Your task to perform on an android device: turn on the 24-hour format for clock Image 0: 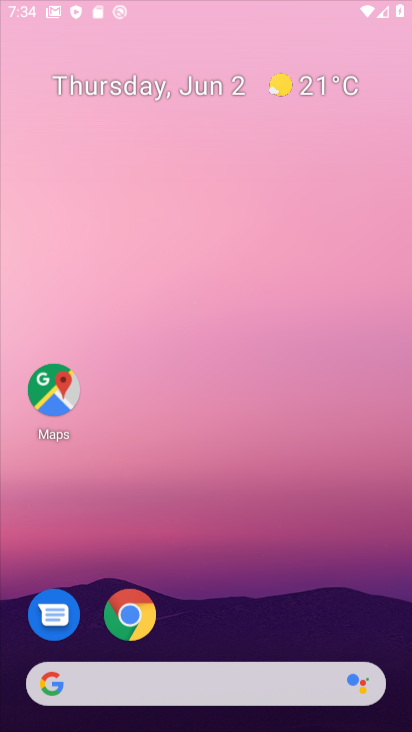
Step 0: press home button
Your task to perform on an android device: turn on the 24-hour format for clock Image 1: 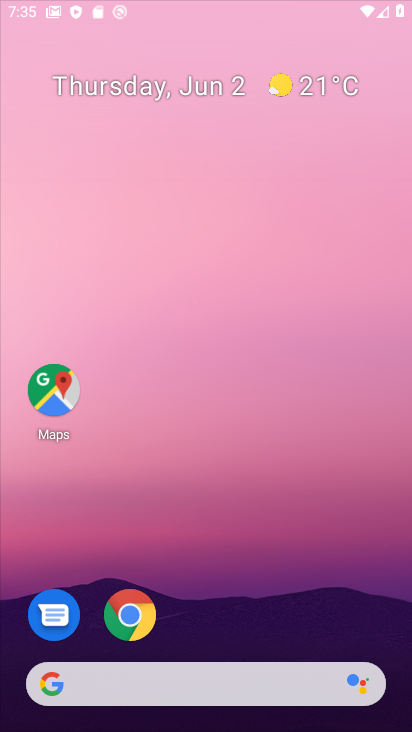
Step 1: click (231, 687)
Your task to perform on an android device: turn on the 24-hour format for clock Image 2: 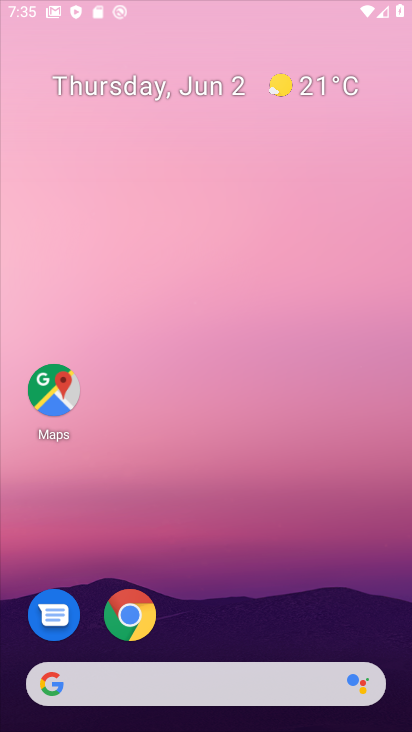
Step 2: click (231, 687)
Your task to perform on an android device: turn on the 24-hour format for clock Image 3: 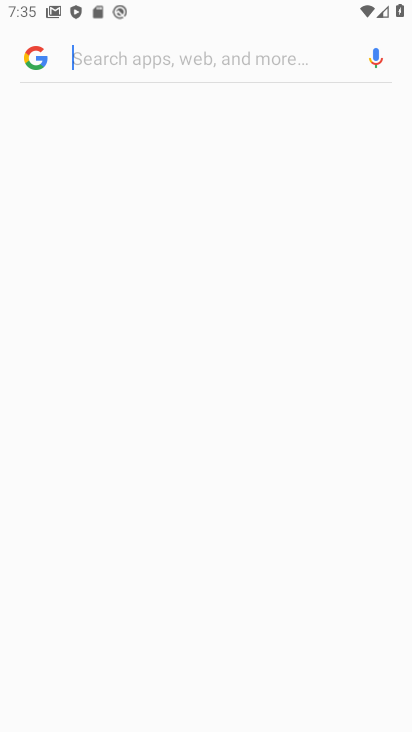
Step 3: press home button
Your task to perform on an android device: turn on the 24-hour format for clock Image 4: 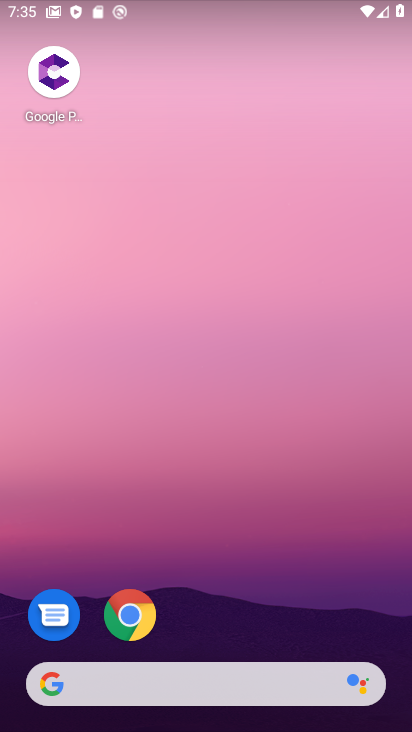
Step 4: drag from (240, 599) to (217, 54)
Your task to perform on an android device: turn on the 24-hour format for clock Image 5: 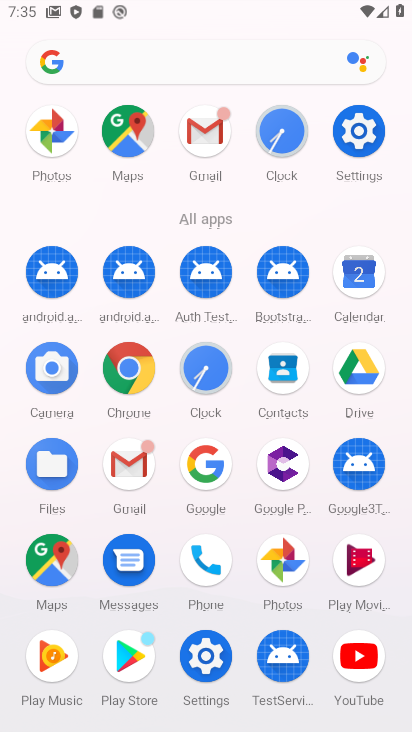
Step 5: click (289, 138)
Your task to perform on an android device: turn on the 24-hour format for clock Image 6: 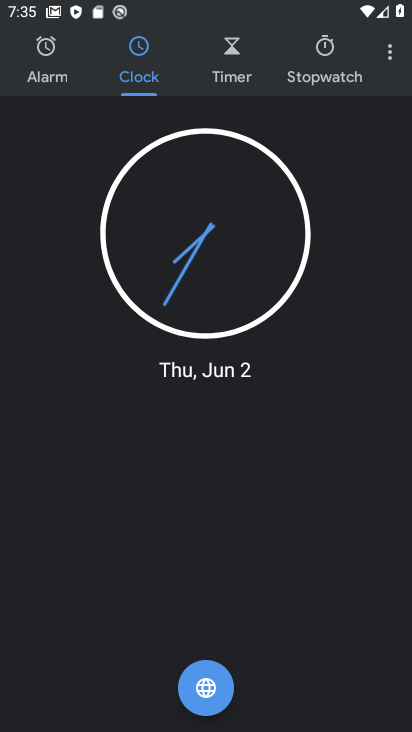
Step 6: click (389, 47)
Your task to perform on an android device: turn on the 24-hour format for clock Image 7: 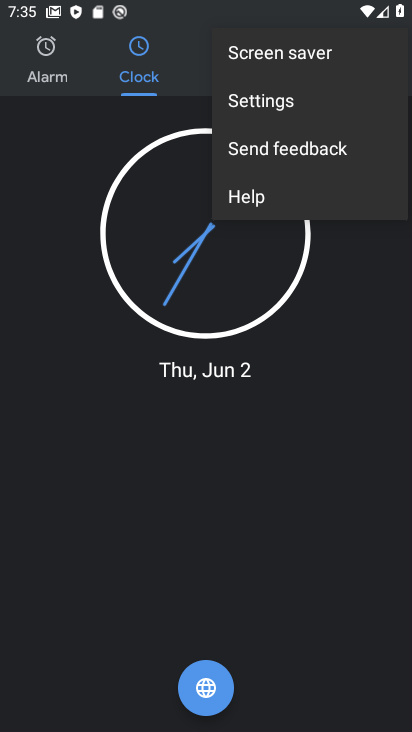
Step 7: click (293, 107)
Your task to perform on an android device: turn on the 24-hour format for clock Image 8: 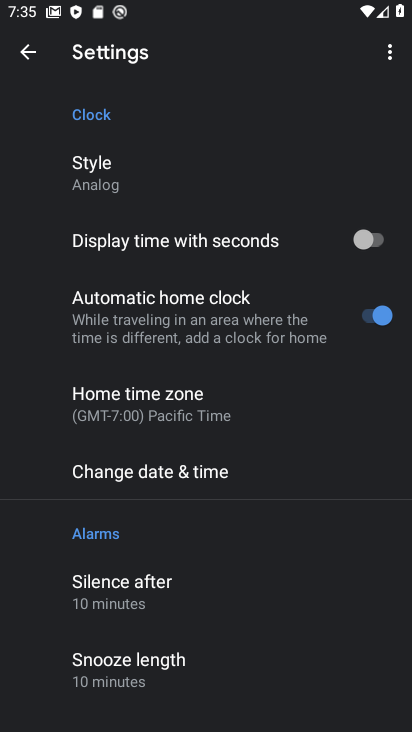
Step 8: drag from (159, 671) to (208, 265)
Your task to perform on an android device: turn on the 24-hour format for clock Image 9: 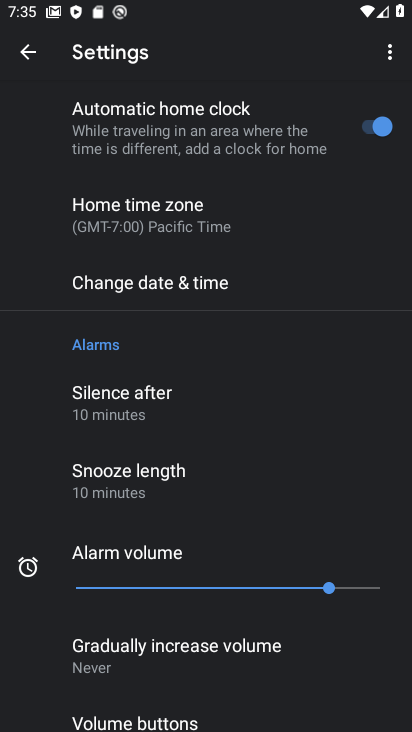
Step 9: click (160, 298)
Your task to perform on an android device: turn on the 24-hour format for clock Image 10: 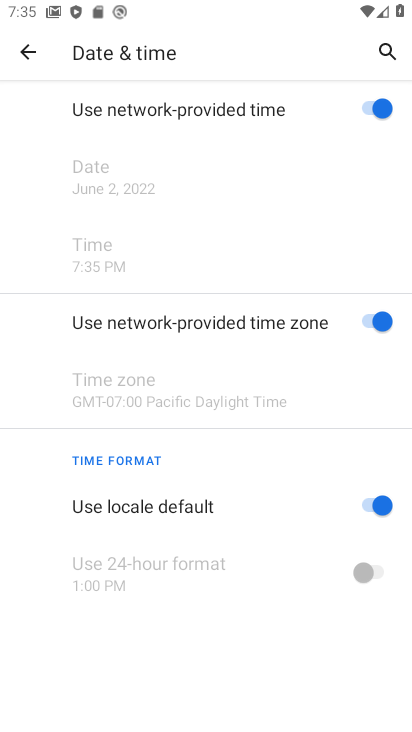
Step 10: drag from (187, 672) to (191, 621)
Your task to perform on an android device: turn on the 24-hour format for clock Image 11: 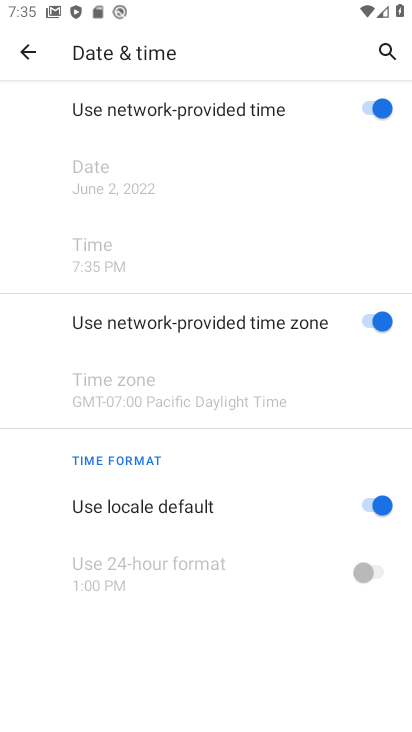
Step 11: click (375, 503)
Your task to perform on an android device: turn on the 24-hour format for clock Image 12: 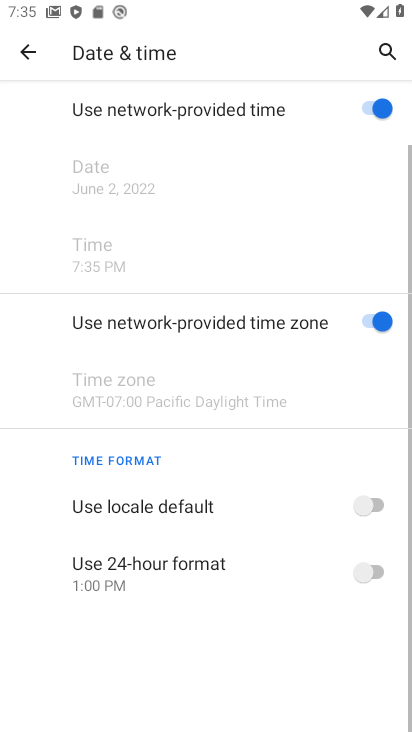
Step 12: click (373, 565)
Your task to perform on an android device: turn on the 24-hour format for clock Image 13: 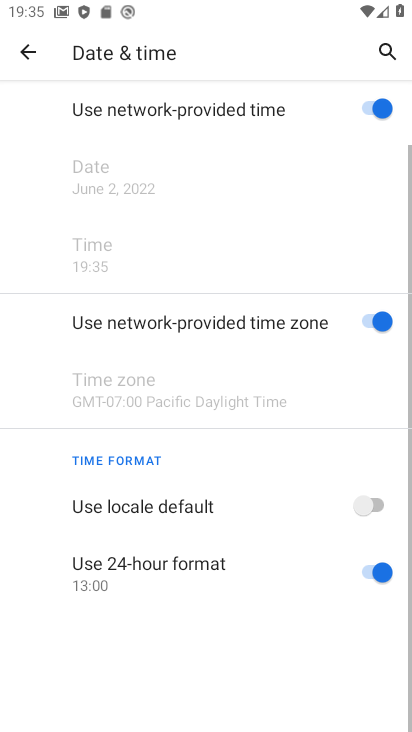
Step 13: task complete